Your task to perform on an android device: Go to sound settings Image 0: 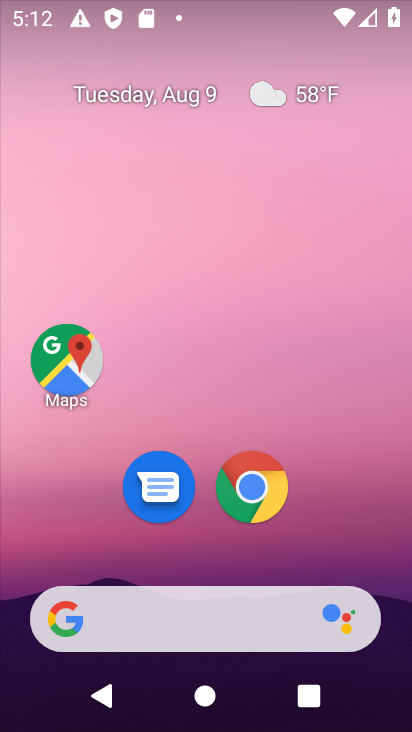
Step 0: drag from (216, 526) to (194, 31)
Your task to perform on an android device: Go to sound settings Image 1: 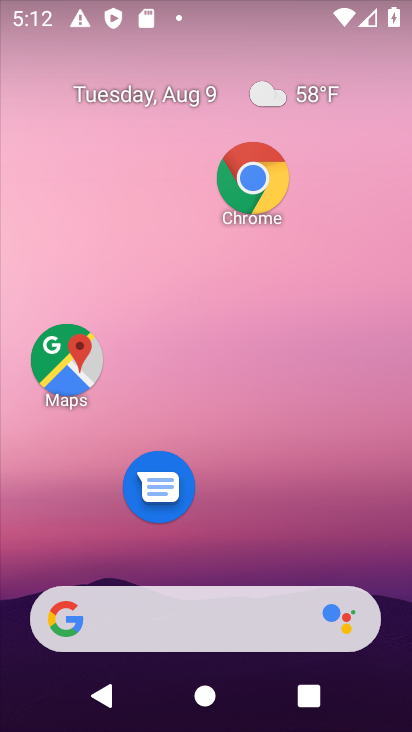
Step 1: click (337, 532)
Your task to perform on an android device: Go to sound settings Image 2: 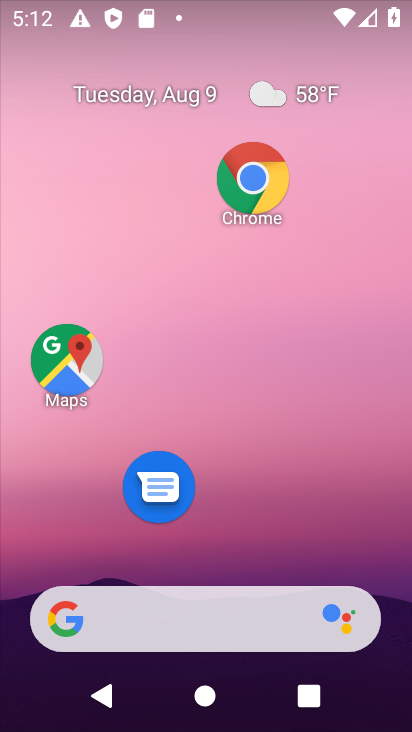
Step 2: drag from (337, 532) to (245, 181)
Your task to perform on an android device: Go to sound settings Image 3: 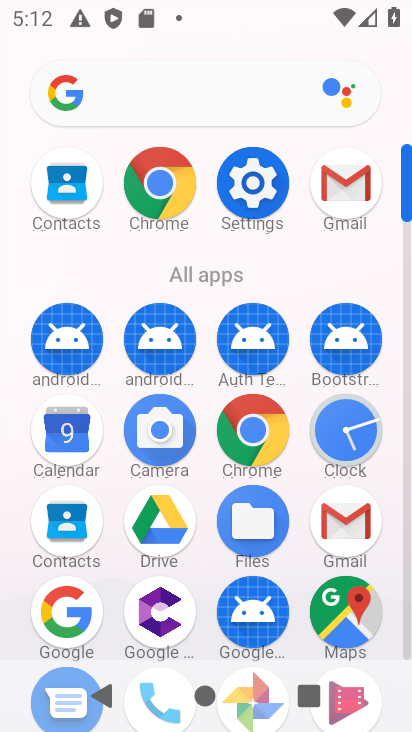
Step 3: click (244, 190)
Your task to perform on an android device: Go to sound settings Image 4: 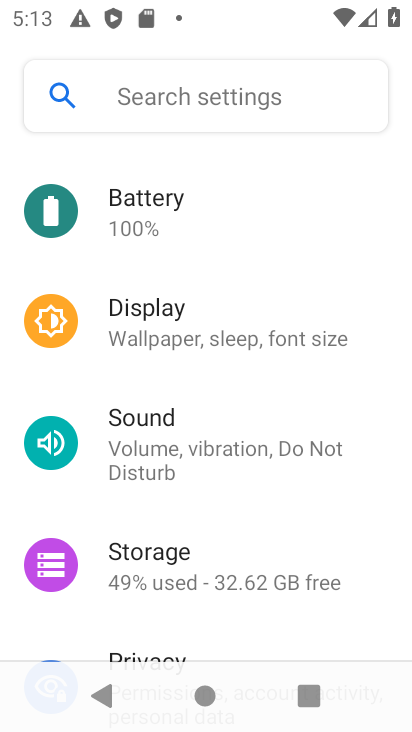
Step 4: click (216, 434)
Your task to perform on an android device: Go to sound settings Image 5: 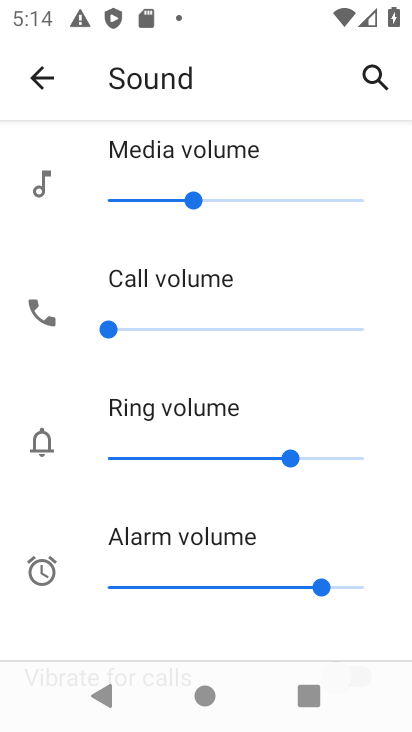
Step 5: task complete